Your task to perform on an android device: turn pop-ups off in chrome Image 0: 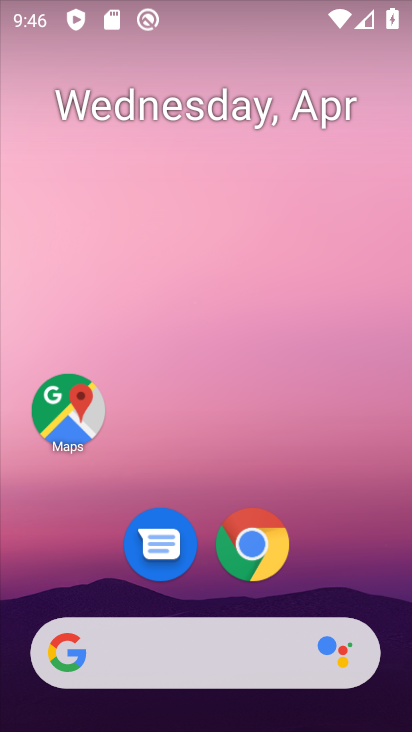
Step 0: drag from (374, 542) to (354, 191)
Your task to perform on an android device: turn pop-ups off in chrome Image 1: 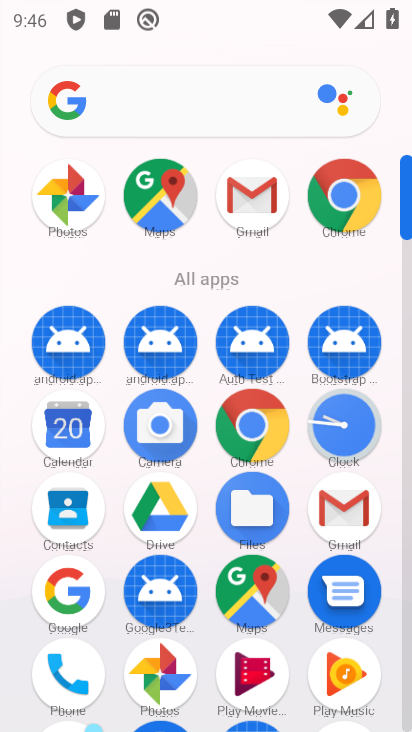
Step 1: click (361, 199)
Your task to perform on an android device: turn pop-ups off in chrome Image 2: 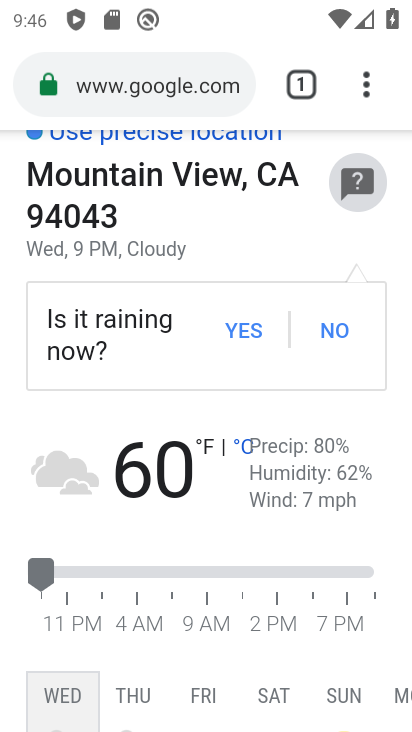
Step 2: click (378, 85)
Your task to perform on an android device: turn pop-ups off in chrome Image 3: 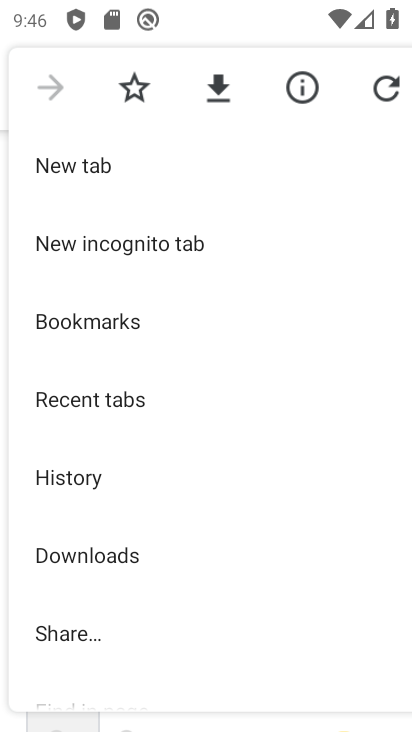
Step 3: drag from (187, 656) to (225, 217)
Your task to perform on an android device: turn pop-ups off in chrome Image 4: 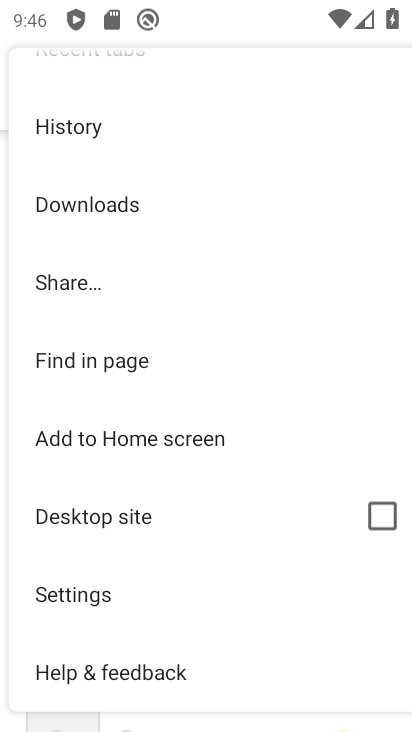
Step 4: click (204, 580)
Your task to perform on an android device: turn pop-ups off in chrome Image 5: 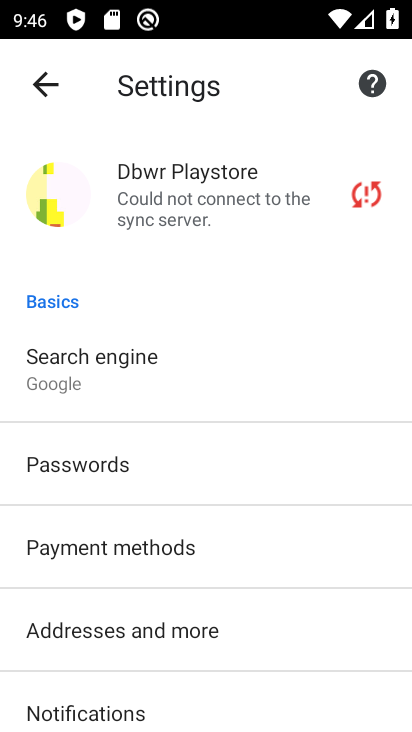
Step 5: drag from (232, 650) to (203, 221)
Your task to perform on an android device: turn pop-ups off in chrome Image 6: 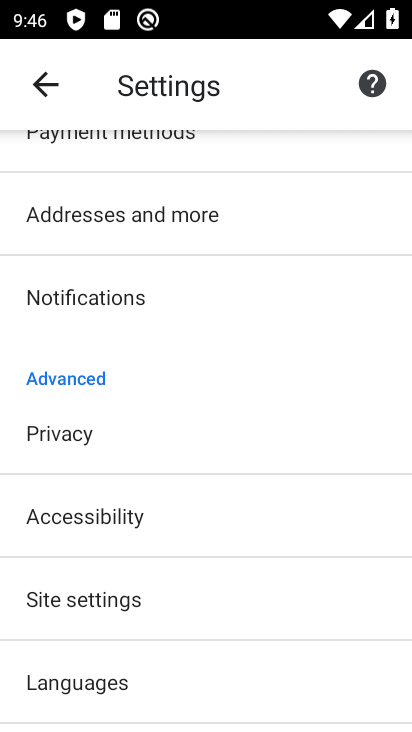
Step 6: drag from (286, 660) to (290, 469)
Your task to perform on an android device: turn pop-ups off in chrome Image 7: 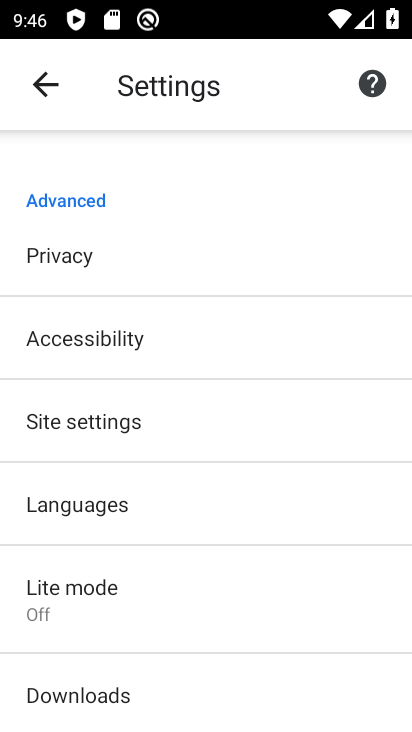
Step 7: click (263, 395)
Your task to perform on an android device: turn pop-ups off in chrome Image 8: 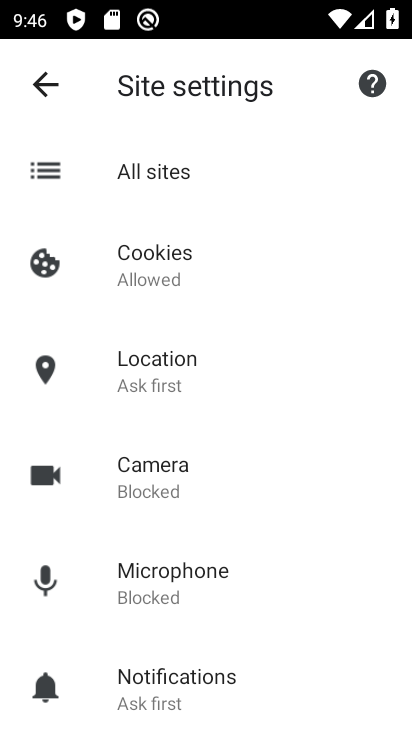
Step 8: drag from (305, 531) to (281, 271)
Your task to perform on an android device: turn pop-ups off in chrome Image 9: 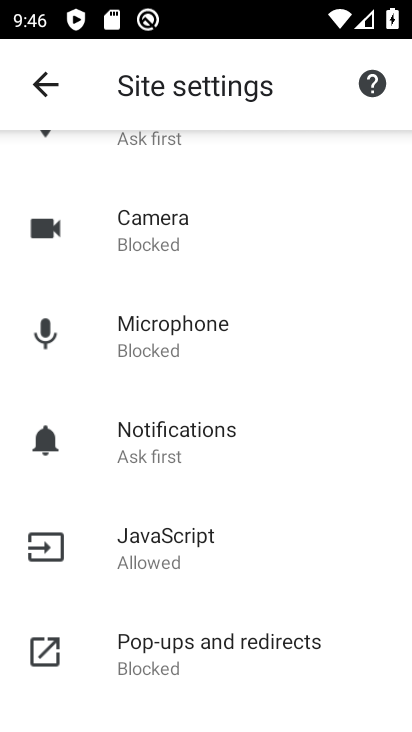
Step 9: click (273, 645)
Your task to perform on an android device: turn pop-ups off in chrome Image 10: 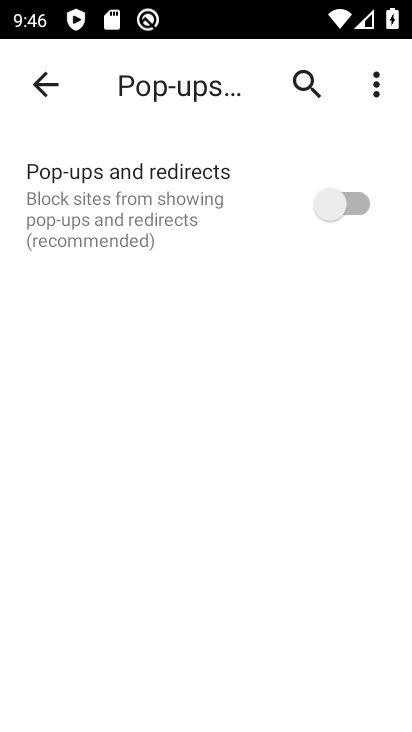
Step 10: task complete